Your task to perform on an android device: turn notification dots on Image 0: 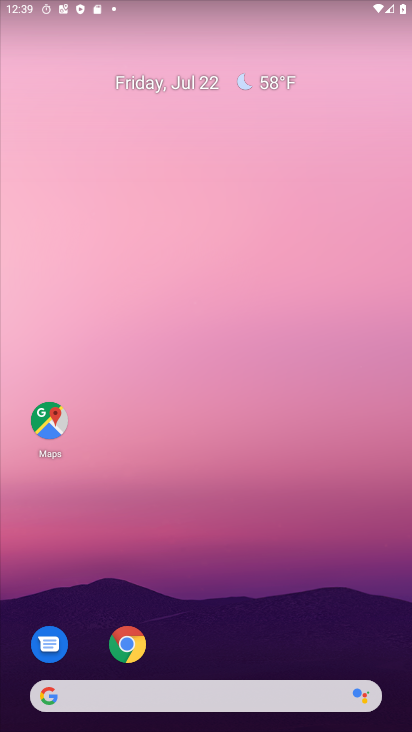
Step 0: drag from (214, 592) to (262, 5)
Your task to perform on an android device: turn notification dots on Image 1: 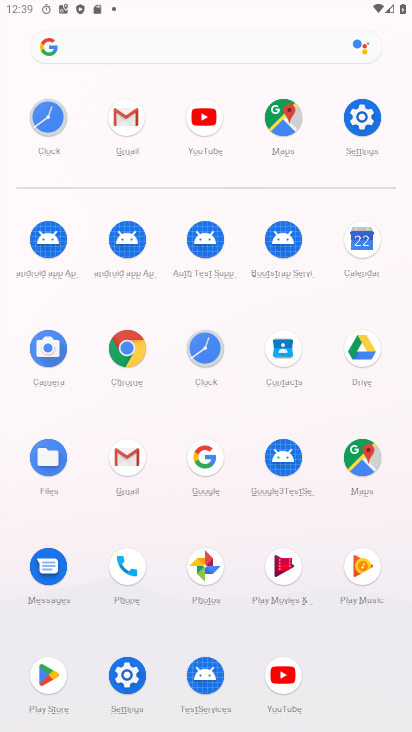
Step 1: click (108, 674)
Your task to perform on an android device: turn notification dots on Image 2: 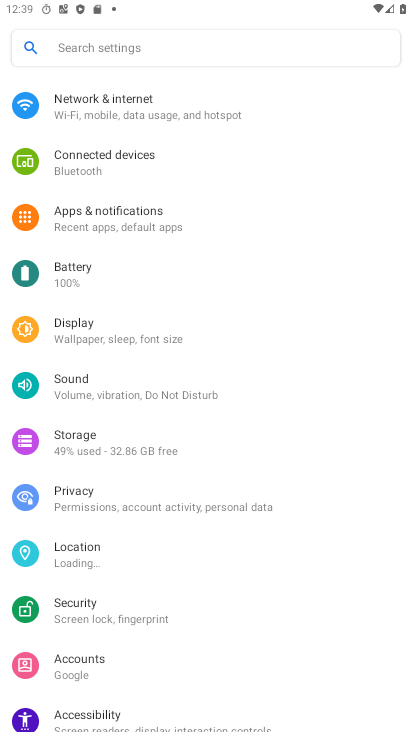
Step 2: click (129, 679)
Your task to perform on an android device: turn notification dots on Image 3: 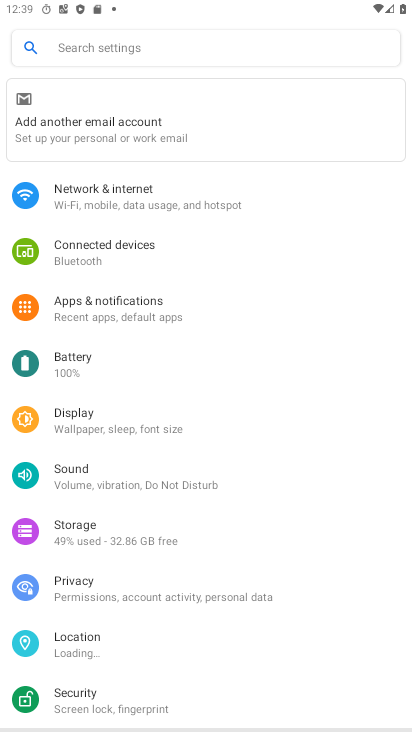
Step 3: drag from (129, 668) to (171, 96)
Your task to perform on an android device: turn notification dots on Image 4: 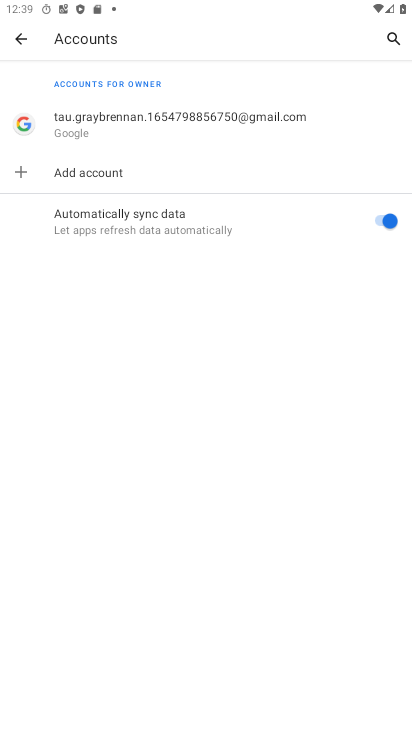
Step 4: click (24, 47)
Your task to perform on an android device: turn notification dots on Image 5: 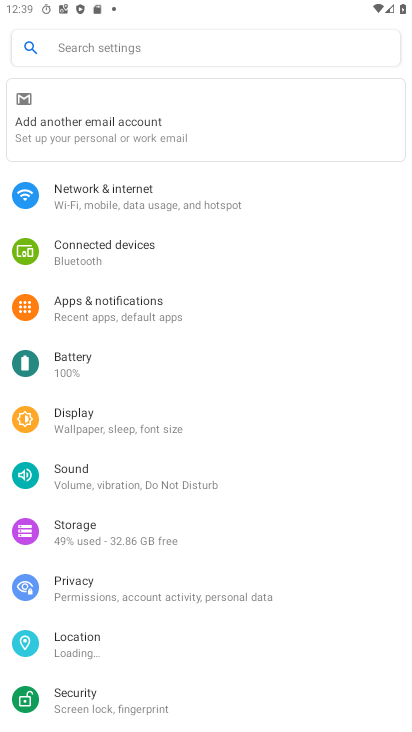
Step 5: click (143, 230)
Your task to perform on an android device: turn notification dots on Image 6: 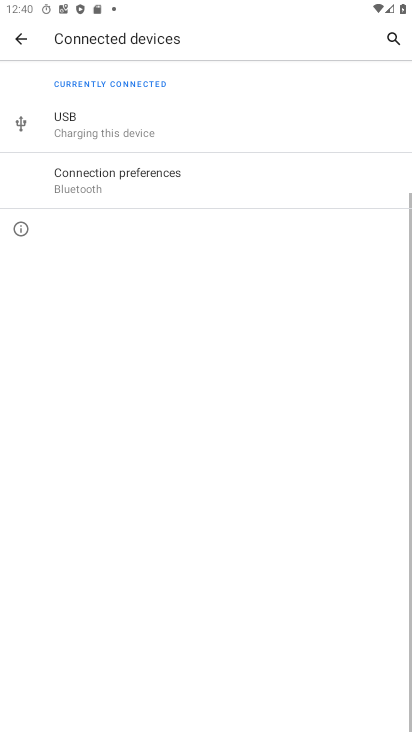
Step 6: click (35, 19)
Your task to perform on an android device: turn notification dots on Image 7: 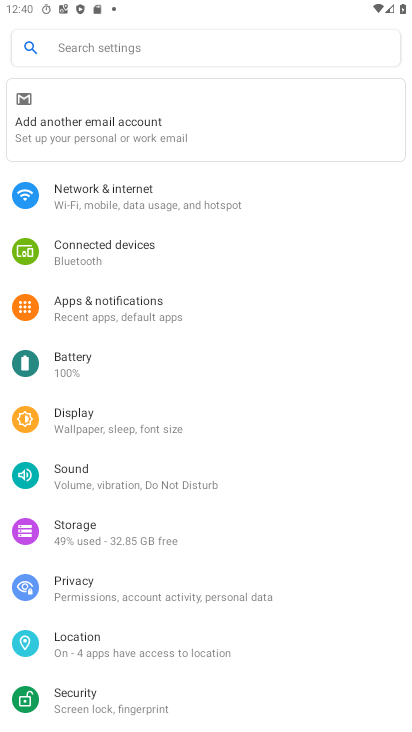
Step 7: click (112, 309)
Your task to perform on an android device: turn notification dots on Image 8: 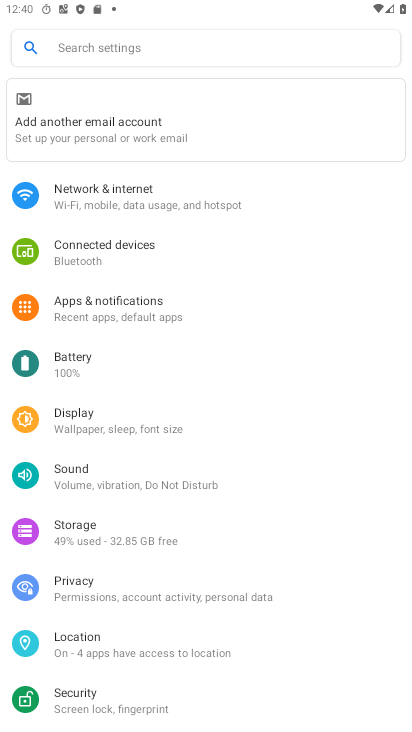
Step 8: drag from (168, 528) to (197, 134)
Your task to perform on an android device: turn notification dots on Image 9: 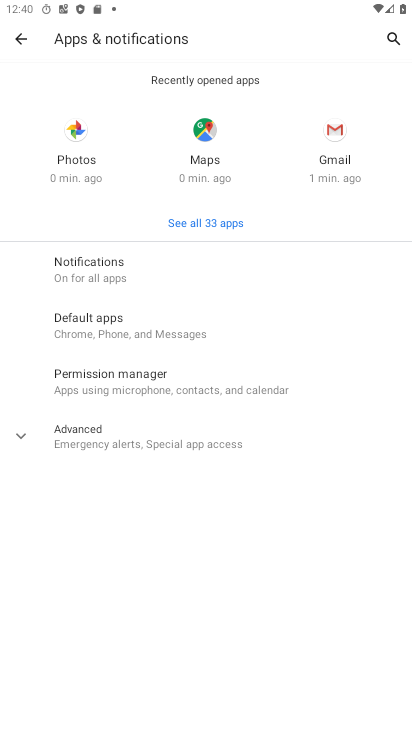
Step 9: click (158, 275)
Your task to perform on an android device: turn notification dots on Image 10: 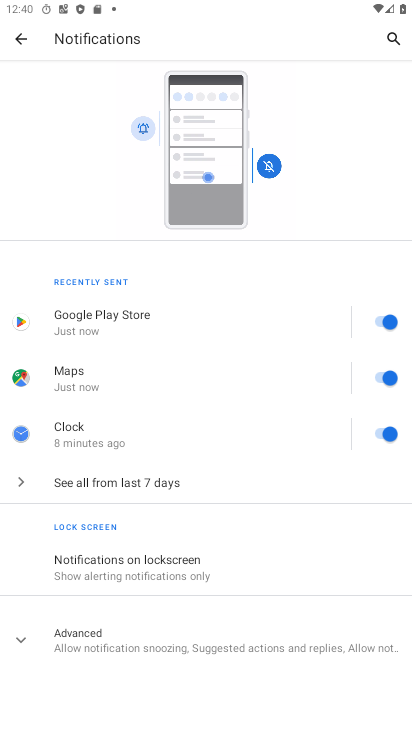
Step 10: click (128, 650)
Your task to perform on an android device: turn notification dots on Image 11: 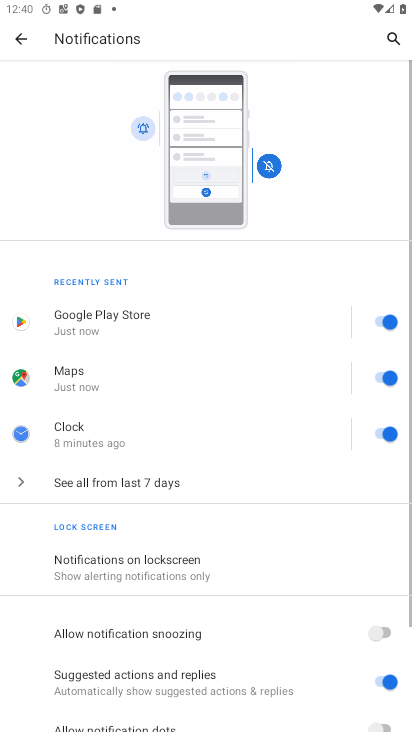
Step 11: drag from (146, 608) to (219, 243)
Your task to perform on an android device: turn notification dots on Image 12: 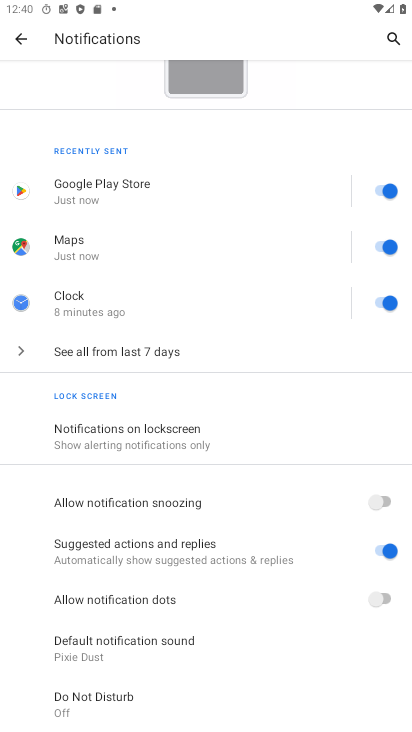
Step 12: click (344, 596)
Your task to perform on an android device: turn notification dots on Image 13: 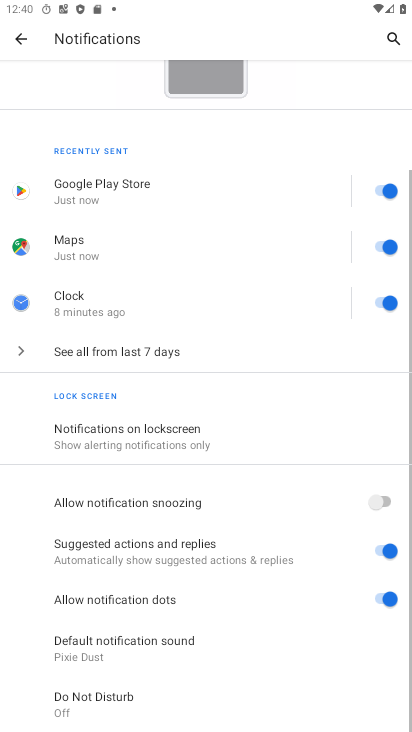
Step 13: task complete